Your task to perform on an android device: Open Yahoo.com Image 0: 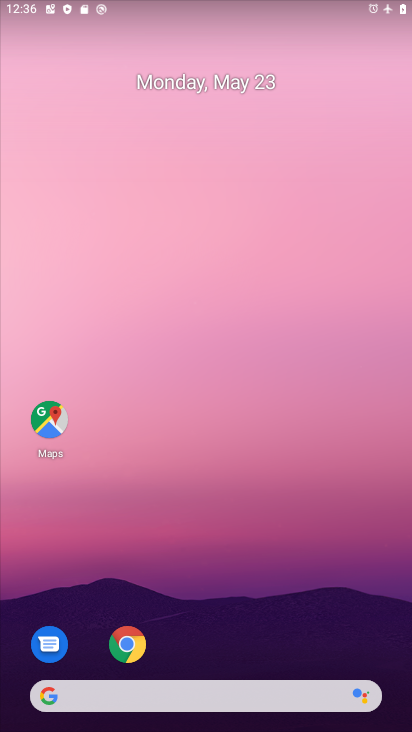
Step 0: drag from (242, 655) to (260, 37)
Your task to perform on an android device: Open Yahoo.com Image 1: 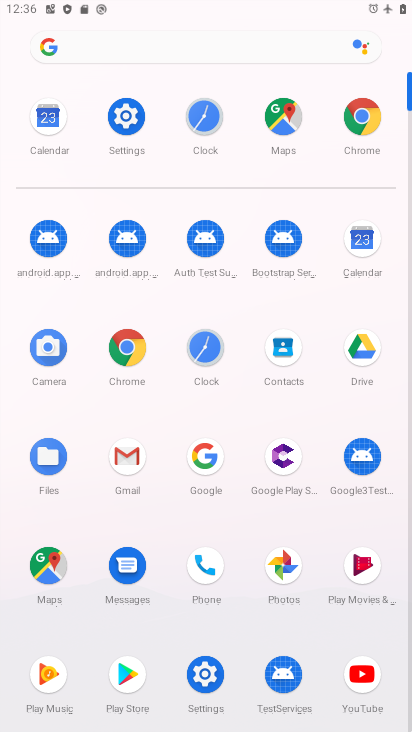
Step 1: click (350, 130)
Your task to perform on an android device: Open Yahoo.com Image 2: 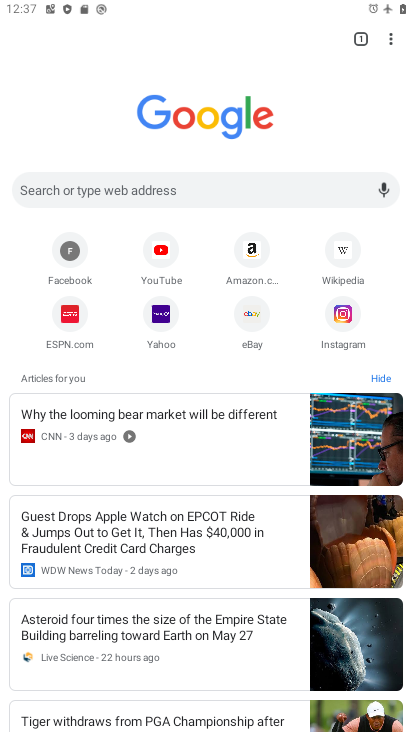
Step 2: click (168, 326)
Your task to perform on an android device: Open Yahoo.com Image 3: 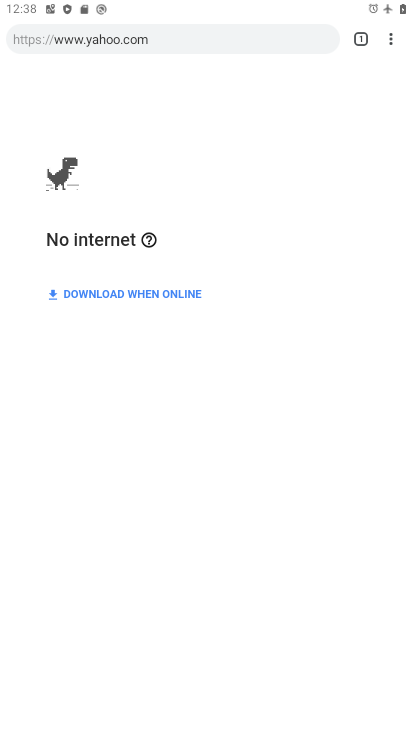
Step 3: task complete